Your task to perform on an android device: turn on sleep mode Image 0: 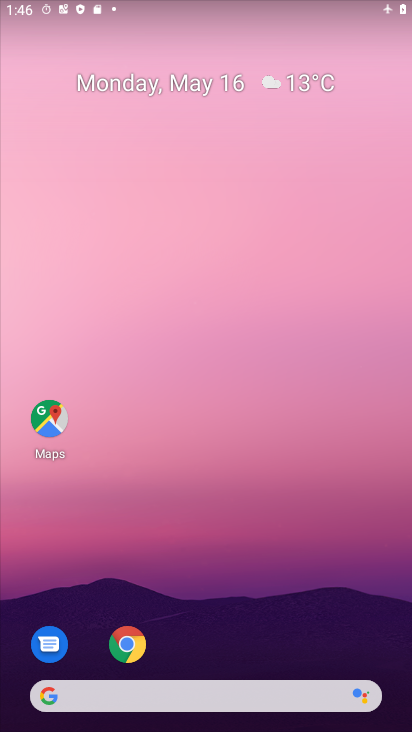
Step 0: drag from (156, 559) to (183, 54)
Your task to perform on an android device: turn on sleep mode Image 1: 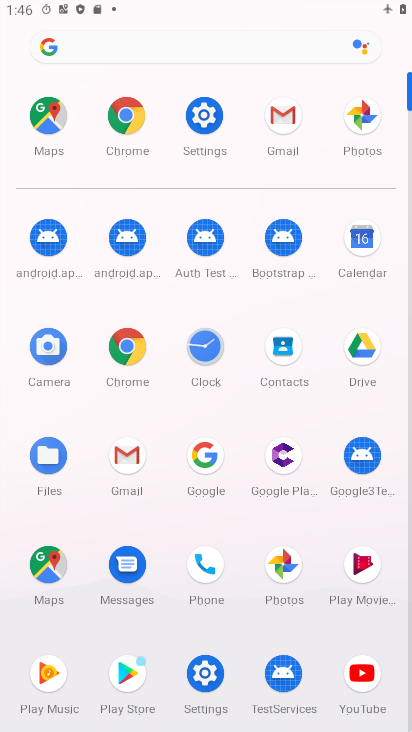
Step 1: click (190, 113)
Your task to perform on an android device: turn on sleep mode Image 2: 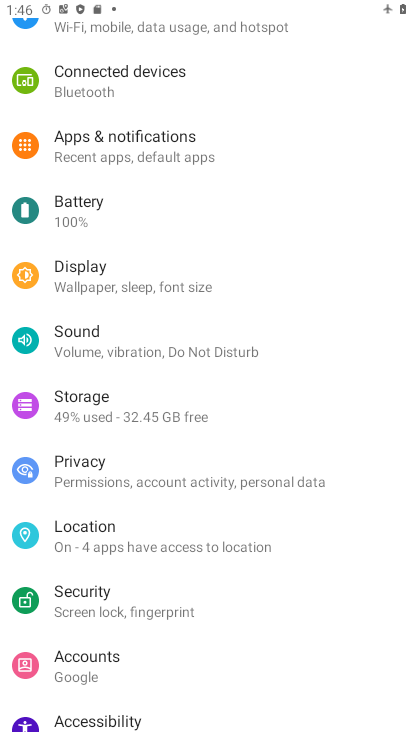
Step 2: click (117, 287)
Your task to perform on an android device: turn on sleep mode Image 3: 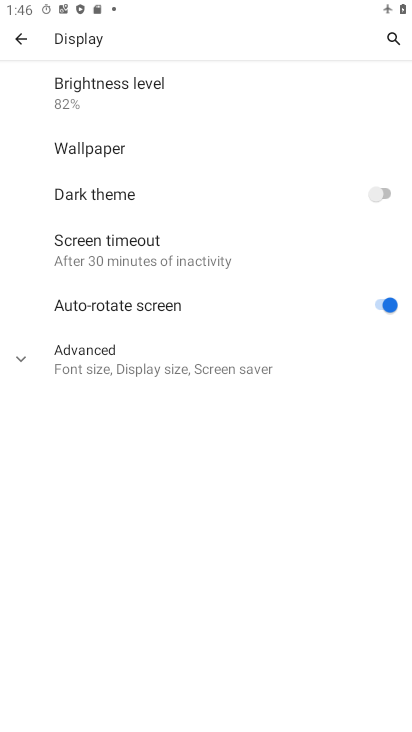
Step 3: click (95, 374)
Your task to perform on an android device: turn on sleep mode Image 4: 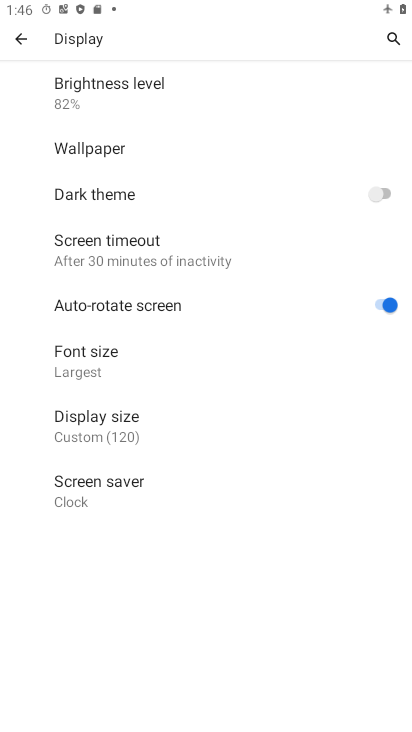
Step 4: task complete